Your task to perform on an android device: show emergency info Image 0: 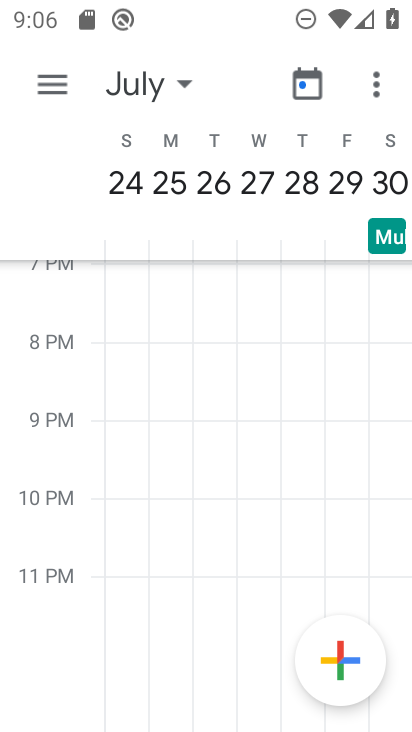
Step 0: press home button
Your task to perform on an android device: show emergency info Image 1: 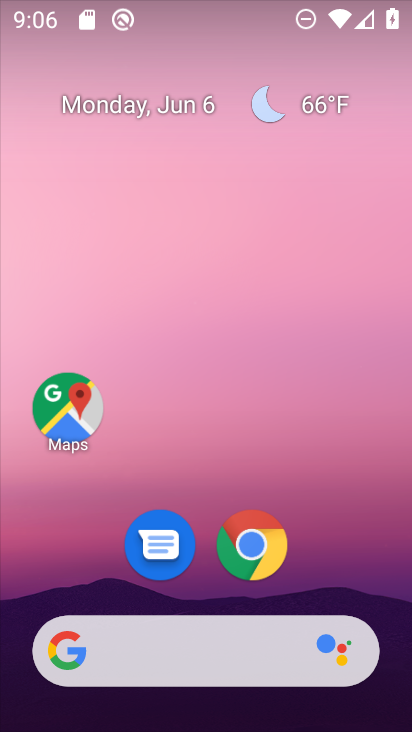
Step 1: drag from (198, 576) to (224, 230)
Your task to perform on an android device: show emergency info Image 2: 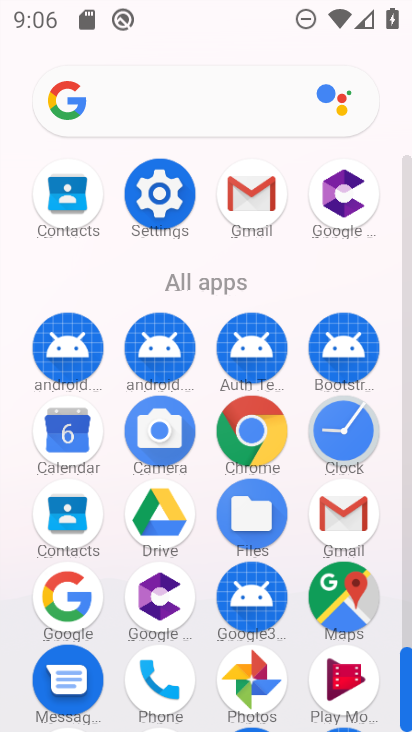
Step 2: click (160, 229)
Your task to perform on an android device: show emergency info Image 3: 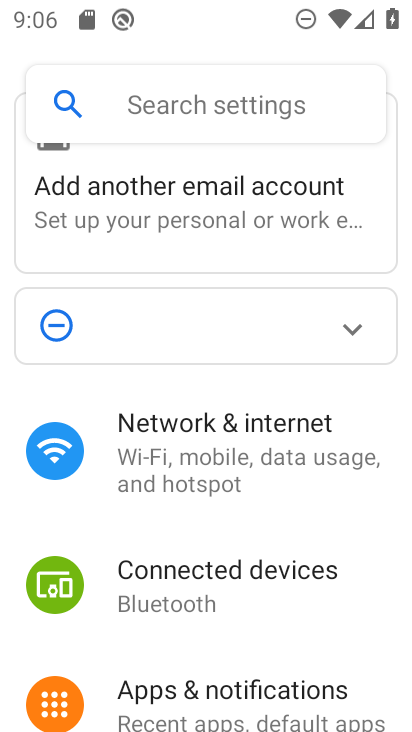
Step 3: drag from (168, 623) to (215, 221)
Your task to perform on an android device: show emergency info Image 4: 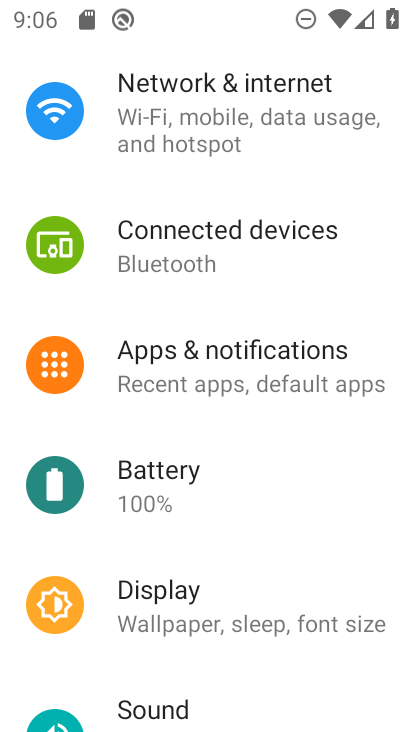
Step 4: drag from (182, 603) to (229, 188)
Your task to perform on an android device: show emergency info Image 5: 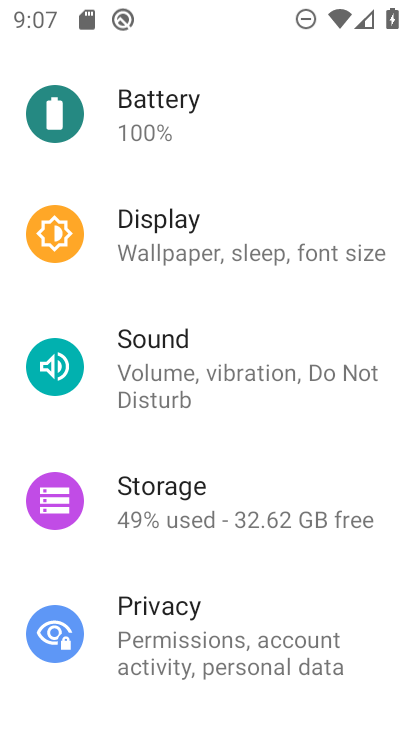
Step 5: drag from (168, 531) to (234, 190)
Your task to perform on an android device: show emergency info Image 6: 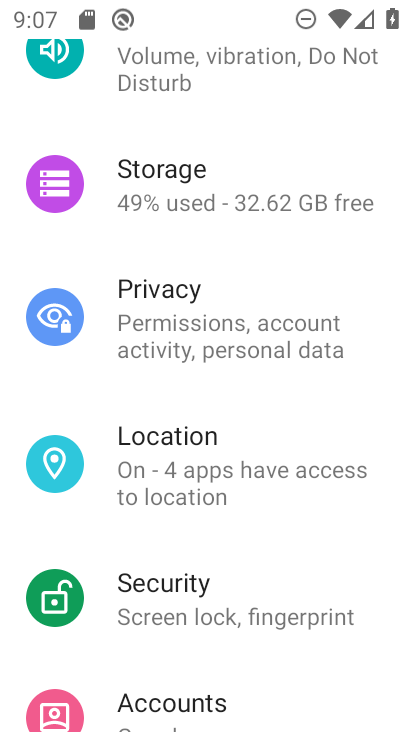
Step 6: drag from (191, 587) to (236, 109)
Your task to perform on an android device: show emergency info Image 7: 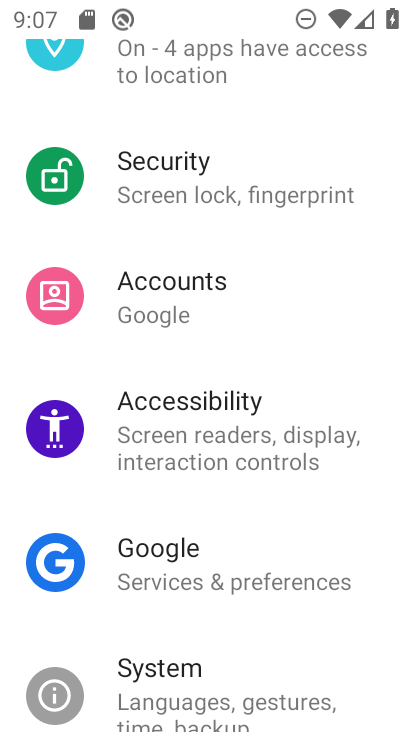
Step 7: drag from (198, 596) to (253, 224)
Your task to perform on an android device: show emergency info Image 8: 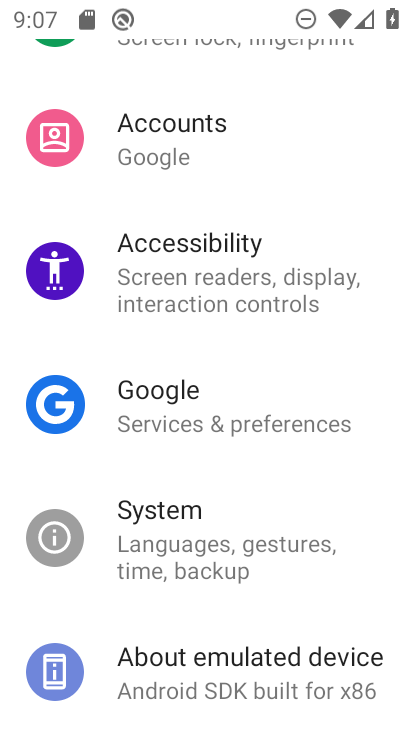
Step 8: click (153, 688)
Your task to perform on an android device: show emergency info Image 9: 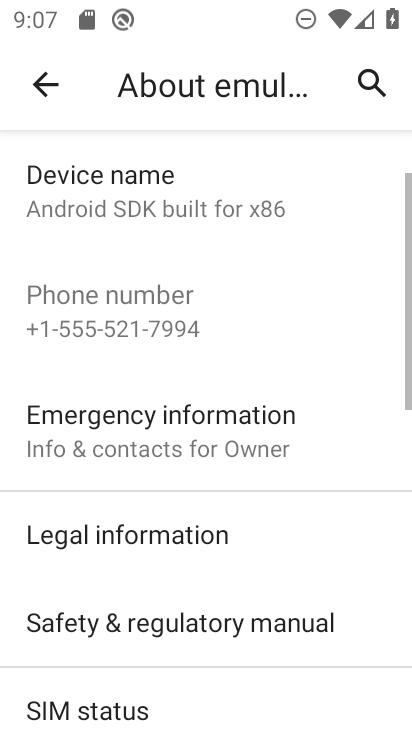
Step 9: drag from (157, 658) to (166, 398)
Your task to perform on an android device: show emergency info Image 10: 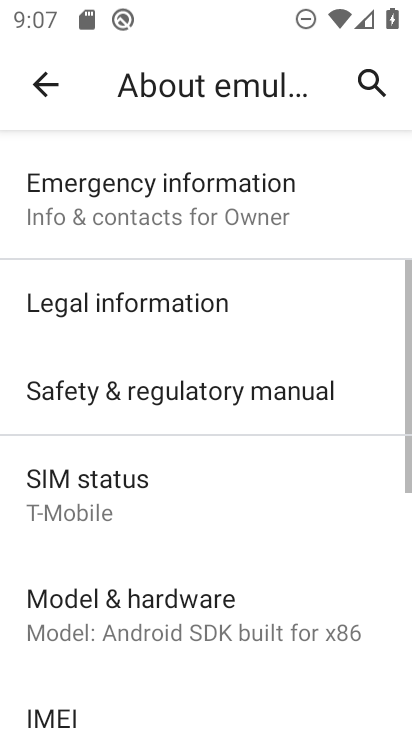
Step 10: click (184, 209)
Your task to perform on an android device: show emergency info Image 11: 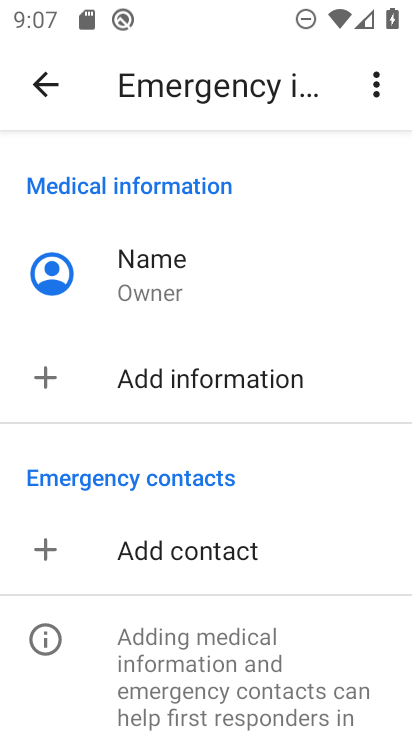
Step 11: task complete